Your task to perform on an android device: Show me productivity apps on the Play Store Image 0: 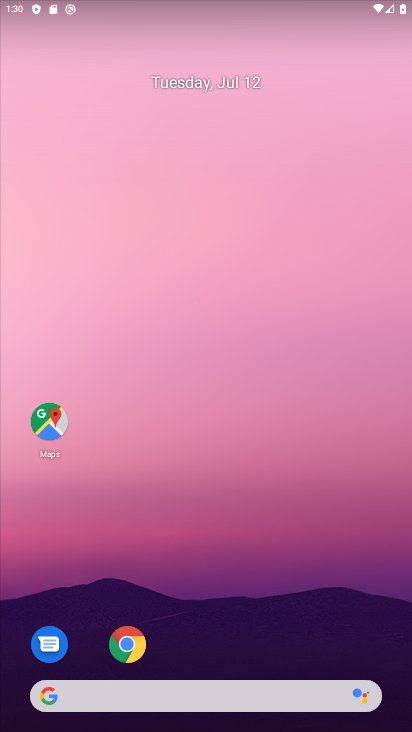
Step 0: drag from (187, 657) to (126, 183)
Your task to perform on an android device: Show me productivity apps on the Play Store Image 1: 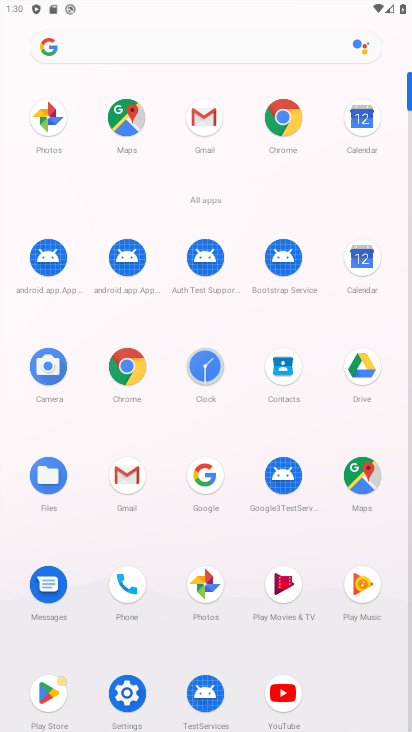
Step 1: click (45, 678)
Your task to perform on an android device: Show me productivity apps on the Play Store Image 2: 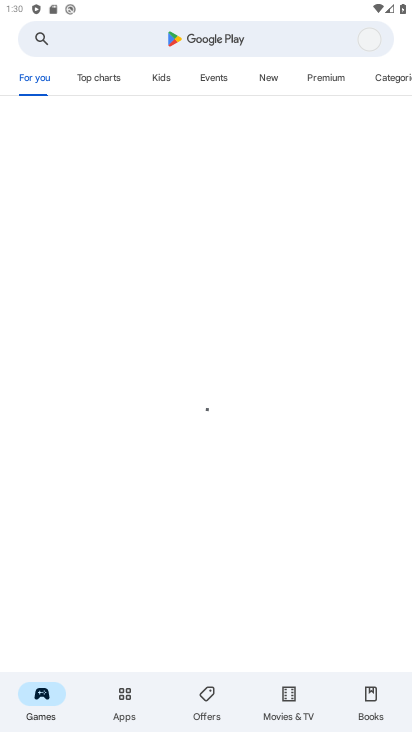
Step 2: click (125, 706)
Your task to perform on an android device: Show me productivity apps on the Play Store Image 3: 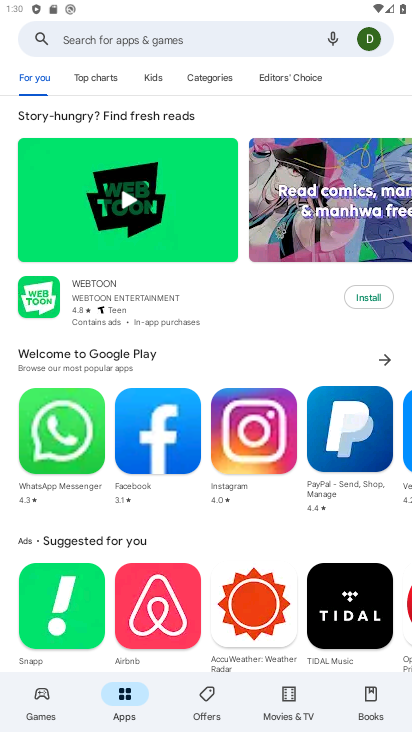
Step 3: click (204, 82)
Your task to perform on an android device: Show me productivity apps on the Play Store Image 4: 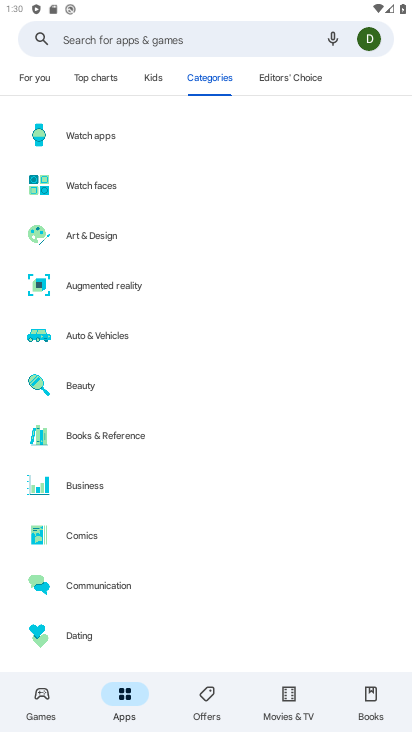
Step 4: drag from (156, 546) to (98, 114)
Your task to perform on an android device: Show me productivity apps on the Play Store Image 5: 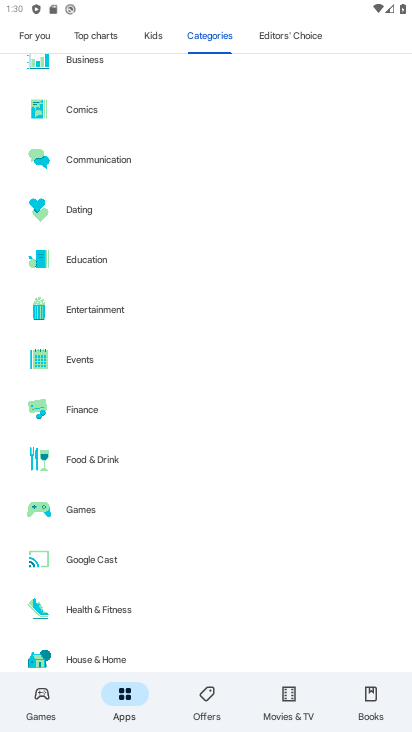
Step 5: drag from (87, 594) to (37, 82)
Your task to perform on an android device: Show me productivity apps on the Play Store Image 6: 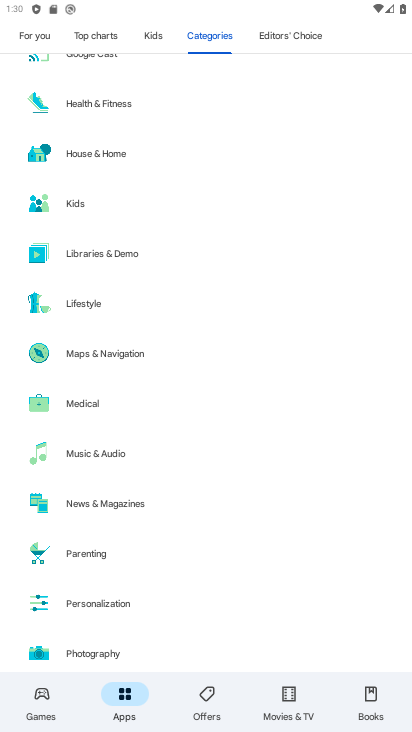
Step 6: drag from (82, 586) to (39, 333)
Your task to perform on an android device: Show me productivity apps on the Play Store Image 7: 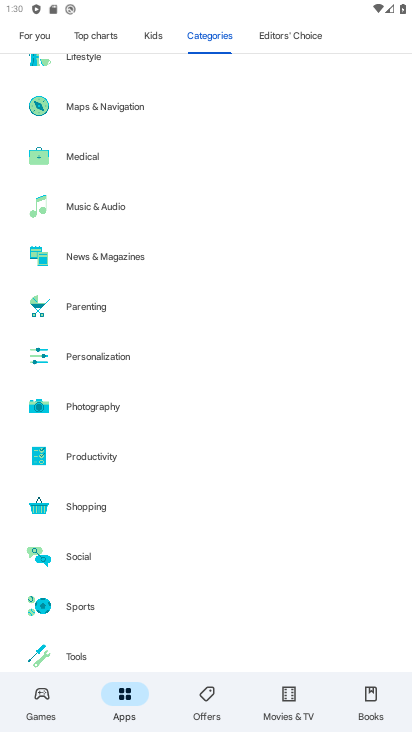
Step 7: click (73, 465)
Your task to perform on an android device: Show me productivity apps on the Play Store Image 8: 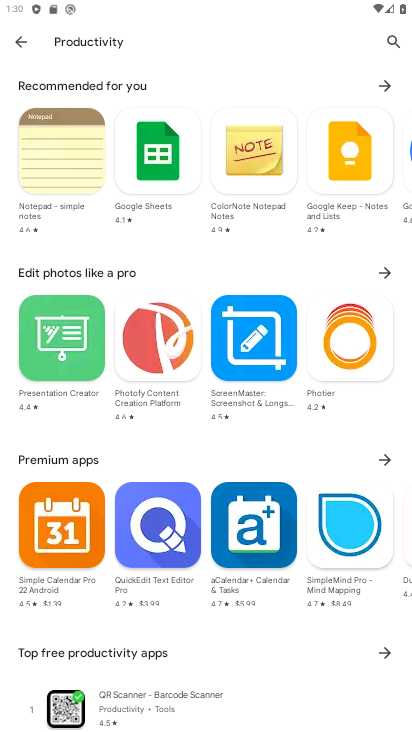
Step 8: task complete